Your task to perform on an android device: toggle show notifications on the lock screen Image 0: 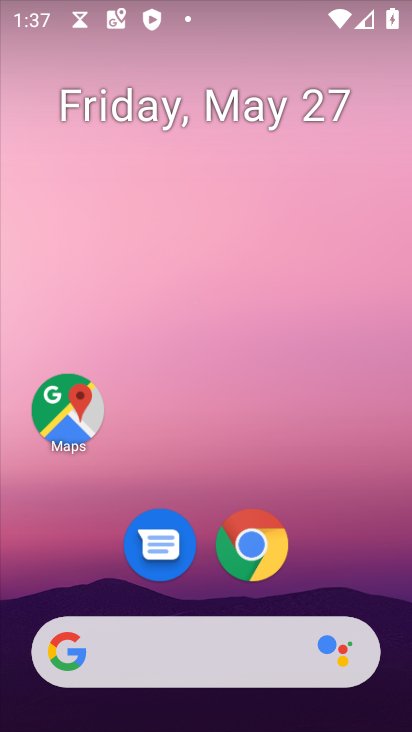
Step 0: drag from (298, 282) to (216, 49)
Your task to perform on an android device: toggle show notifications on the lock screen Image 1: 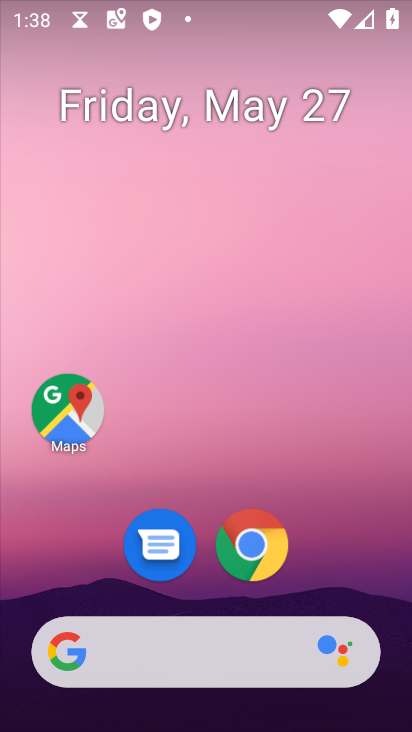
Step 1: drag from (279, 296) to (248, 46)
Your task to perform on an android device: toggle show notifications on the lock screen Image 2: 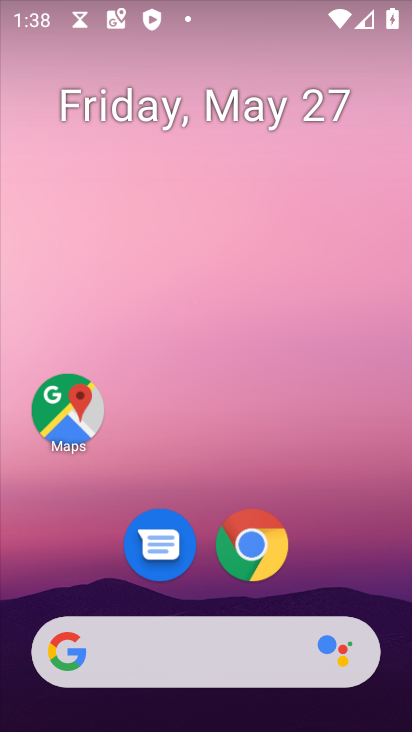
Step 2: drag from (335, 462) to (248, 20)
Your task to perform on an android device: toggle show notifications on the lock screen Image 3: 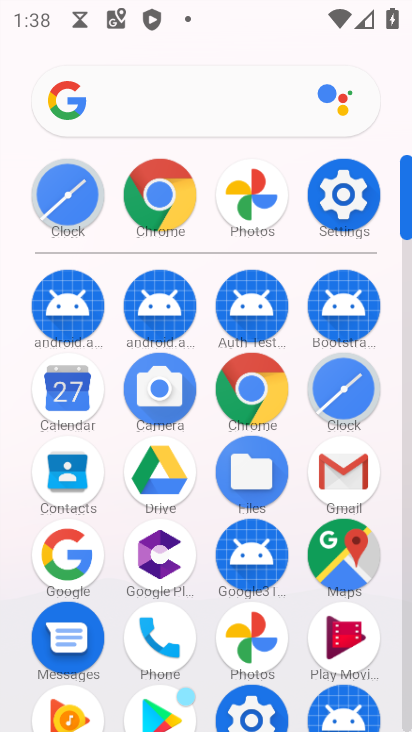
Step 3: click (329, 196)
Your task to perform on an android device: toggle show notifications on the lock screen Image 4: 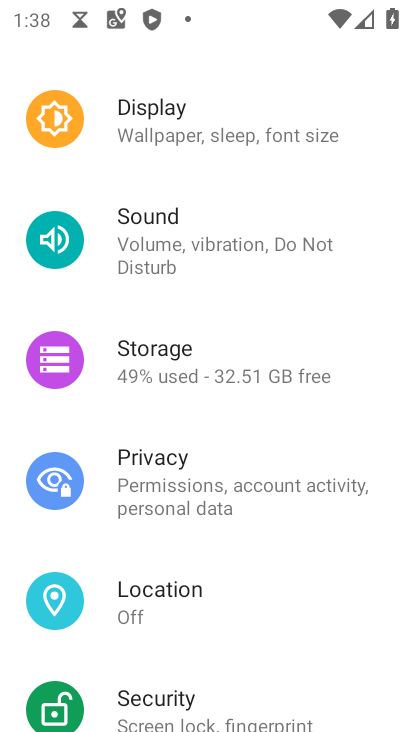
Step 4: drag from (246, 165) to (207, 714)
Your task to perform on an android device: toggle show notifications on the lock screen Image 5: 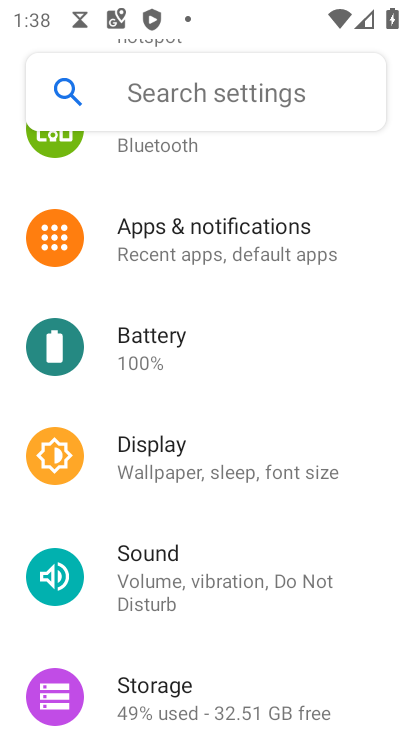
Step 5: click (254, 227)
Your task to perform on an android device: toggle show notifications on the lock screen Image 6: 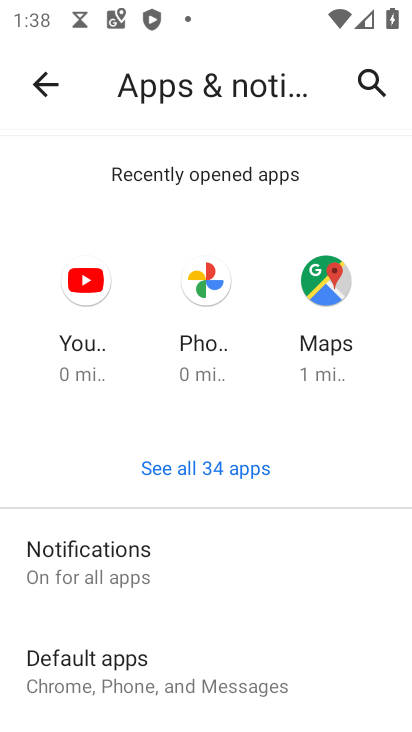
Step 6: click (174, 555)
Your task to perform on an android device: toggle show notifications on the lock screen Image 7: 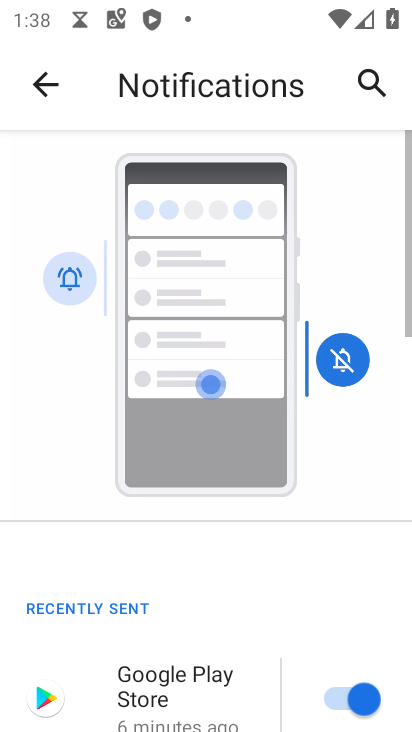
Step 7: drag from (274, 589) to (217, 1)
Your task to perform on an android device: toggle show notifications on the lock screen Image 8: 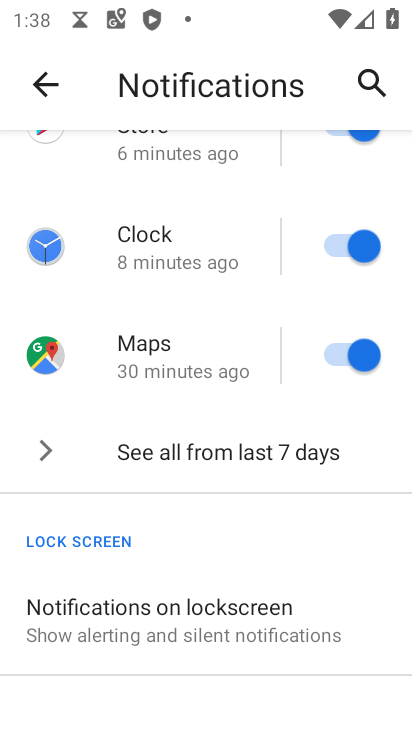
Step 8: click (186, 620)
Your task to perform on an android device: toggle show notifications on the lock screen Image 9: 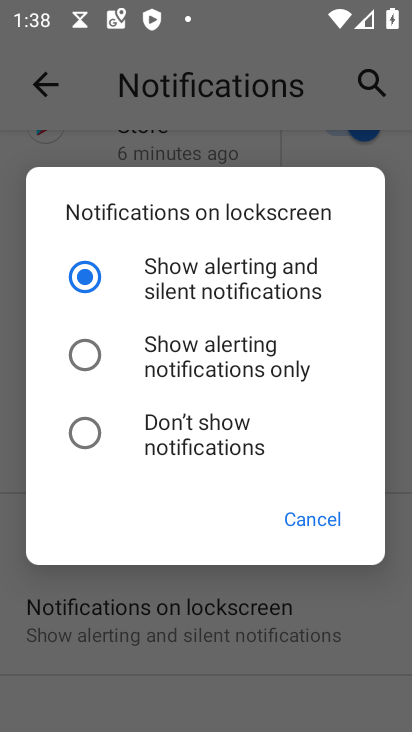
Step 9: click (207, 428)
Your task to perform on an android device: toggle show notifications on the lock screen Image 10: 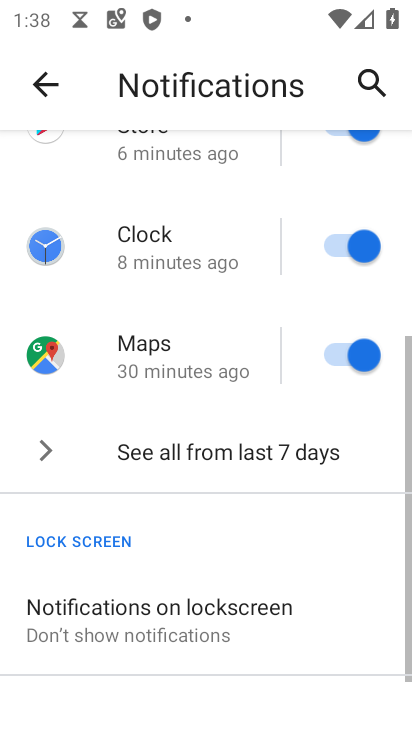
Step 10: task complete